Your task to perform on an android device: Open Google Chrome and open the bookmarks view Image 0: 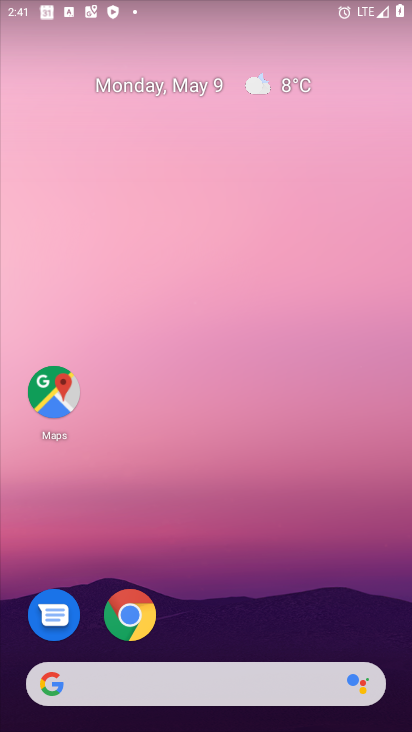
Step 0: click (128, 616)
Your task to perform on an android device: Open Google Chrome and open the bookmarks view Image 1: 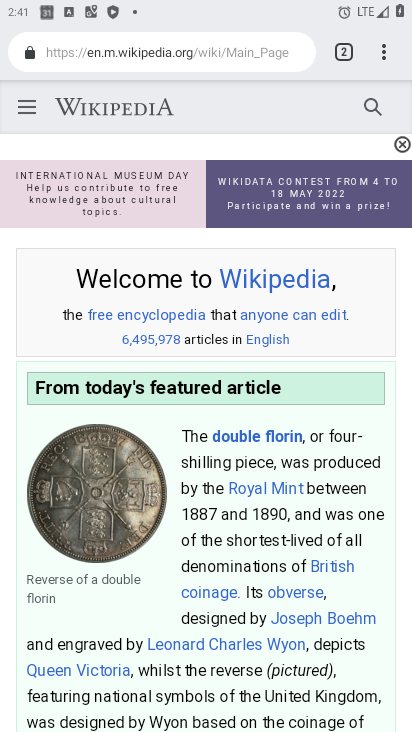
Step 1: click (381, 54)
Your task to perform on an android device: Open Google Chrome and open the bookmarks view Image 2: 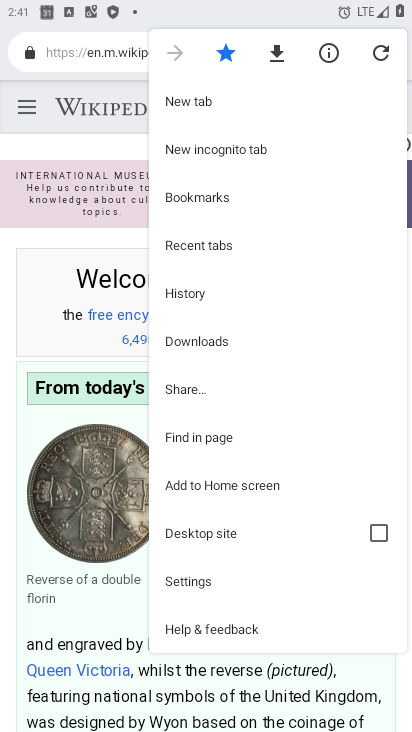
Step 2: click (191, 193)
Your task to perform on an android device: Open Google Chrome and open the bookmarks view Image 3: 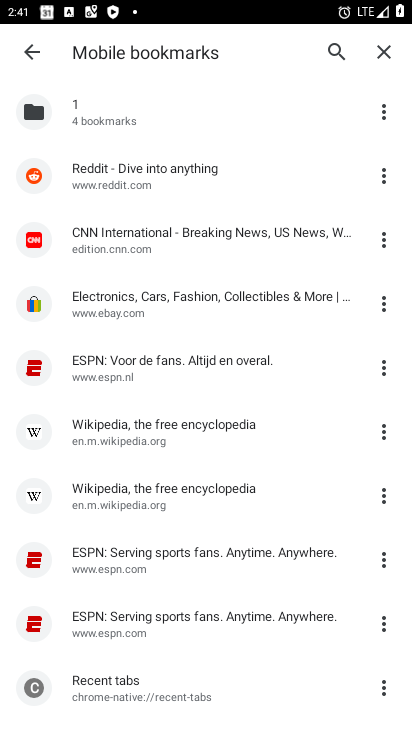
Step 3: task complete